Your task to perform on an android device: change your default location settings in chrome Image 0: 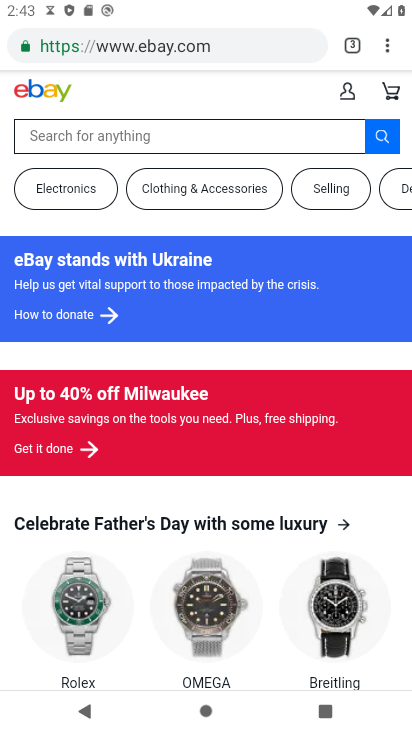
Step 0: press home button
Your task to perform on an android device: change your default location settings in chrome Image 1: 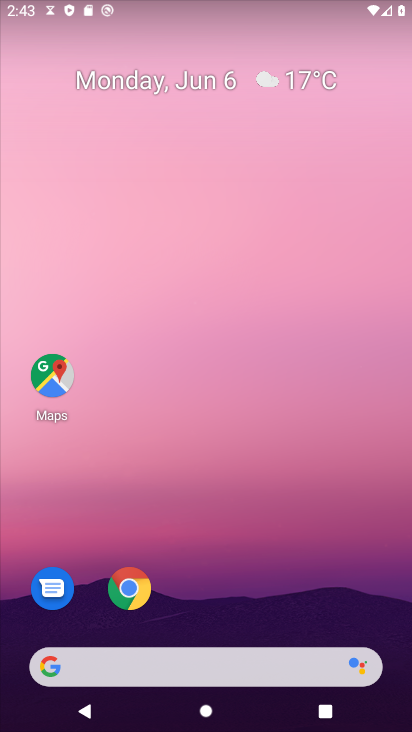
Step 1: click (132, 602)
Your task to perform on an android device: change your default location settings in chrome Image 2: 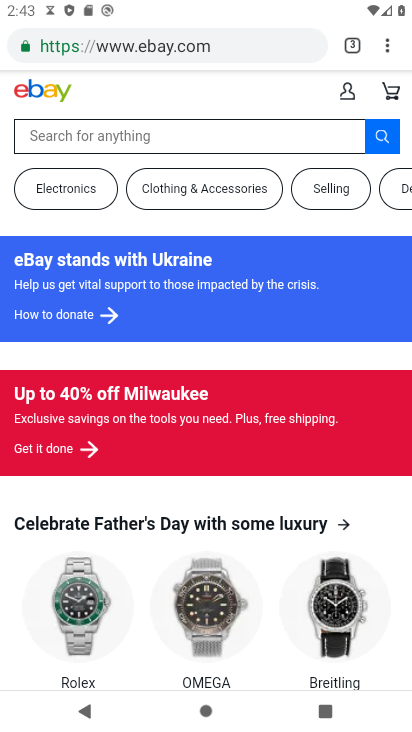
Step 2: drag from (378, 50) to (262, 546)
Your task to perform on an android device: change your default location settings in chrome Image 3: 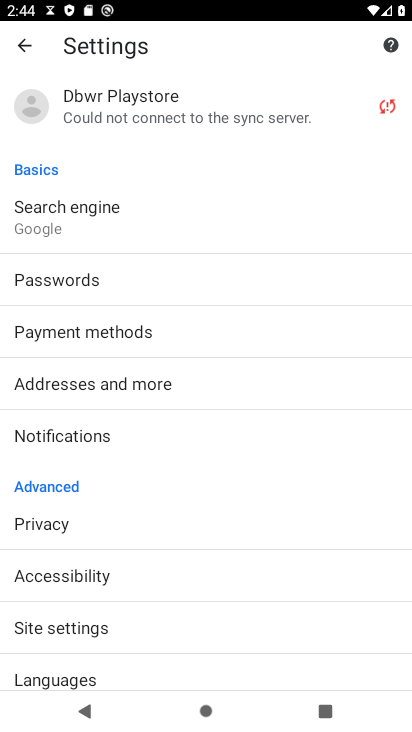
Step 3: click (119, 626)
Your task to perform on an android device: change your default location settings in chrome Image 4: 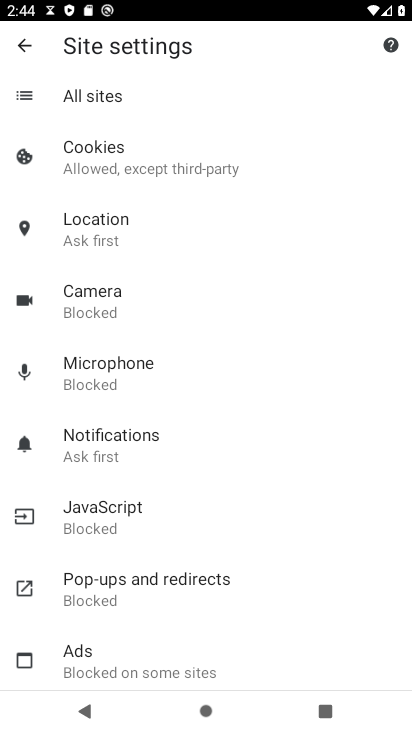
Step 4: click (96, 229)
Your task to perform on an android device: change your default location settings in chrome Image 5: 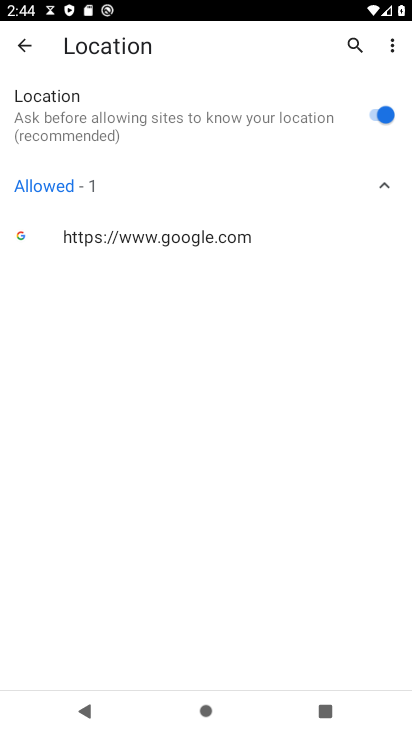
Step 5: click (383, 113)
Your task to perform on an android device: change your default location settings in chrome Image 6: 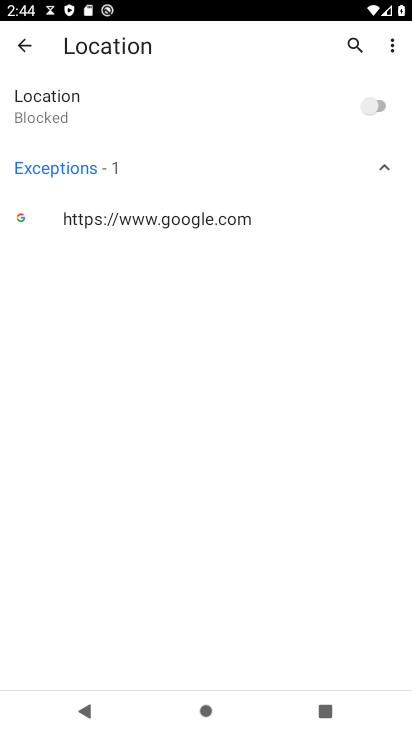
Step 6: task complete